Your task to perform on an android device: change notification settings in the gmail app Image 0: 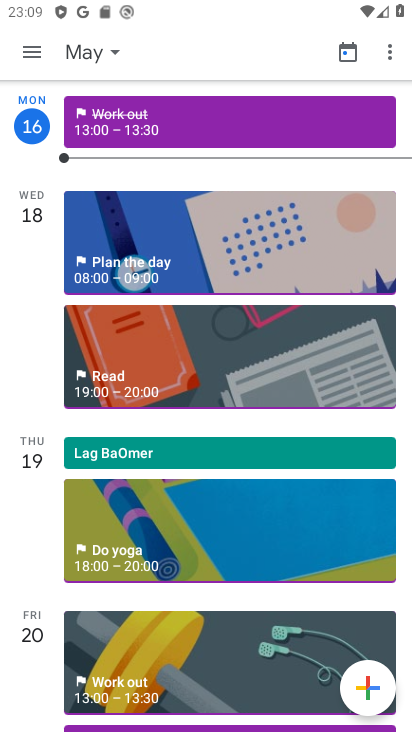
Step 0: press home button
Your task to perform on an android device: change notification settings in the gmail app Image 1: 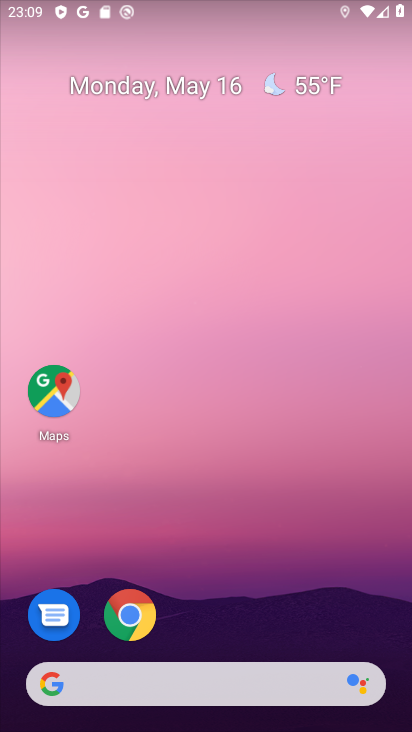
Step 1: drag from (227, 658) to (142, 0)
Your task to perform on an android device: change notification settings in the gmail app Image 2: 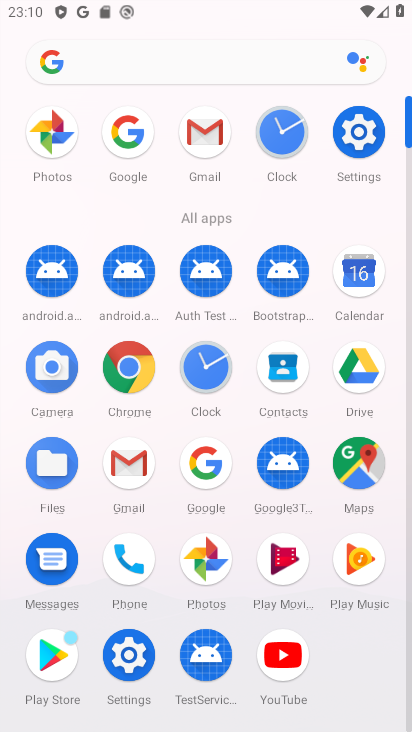
Step 2: click (128, 463)
Your task to perform on an android device: change notification settings in the gmail app Image 3: 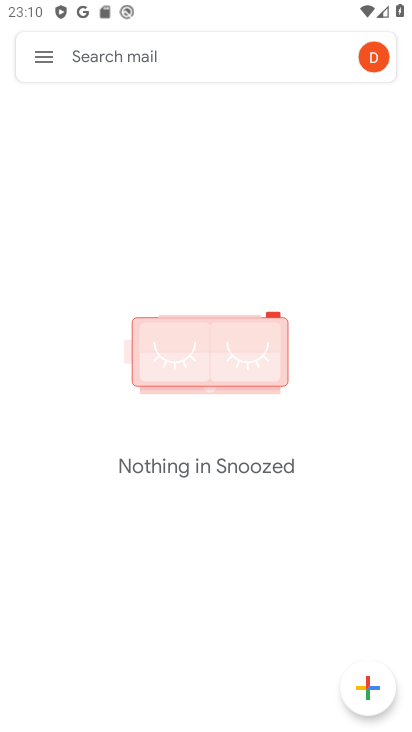
Step 3: click (42, 63)
Your task to perform on an android device: change notification settings in the gmail app Image 4: 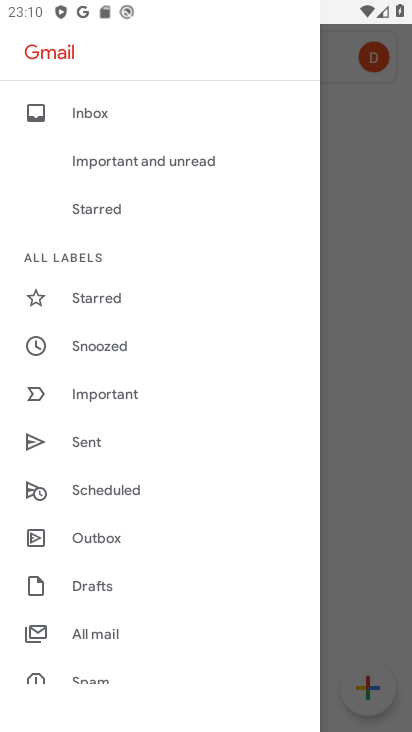
Step 4: drag from (91, 566) to (49, 36)
Your task to perform on an android device: change notification settings in the gmail app Image 5: 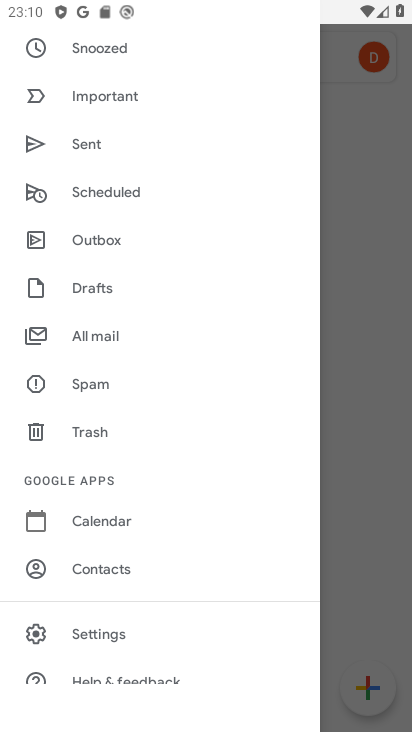
Step 5: click (65, 624)
Your task to perform on an android device: change notification settings in the gmail app Image 6: 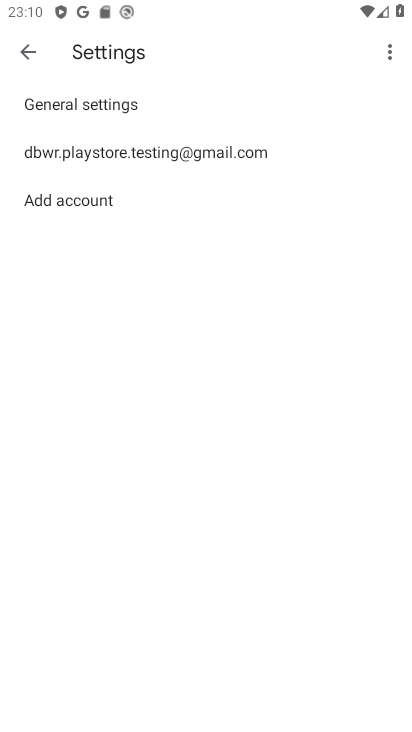
Step 6: click (84, 105)
Your task to perform on an android device: change notification settings in the gmail app Image 7: 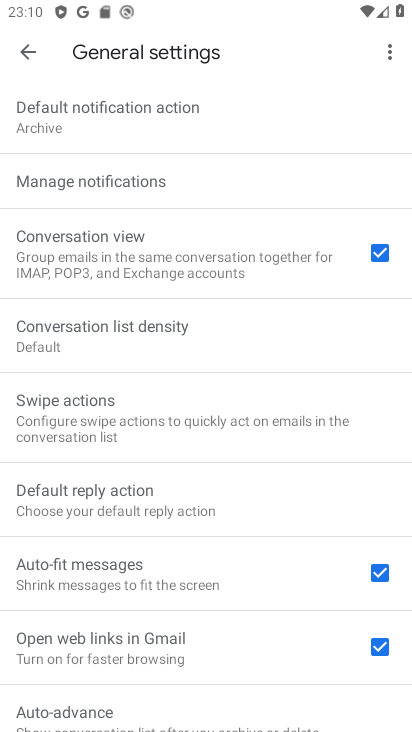
Step 7: click (77, 166)
Your task to perform on an android device: change notification settings in the gmail app Image 8: 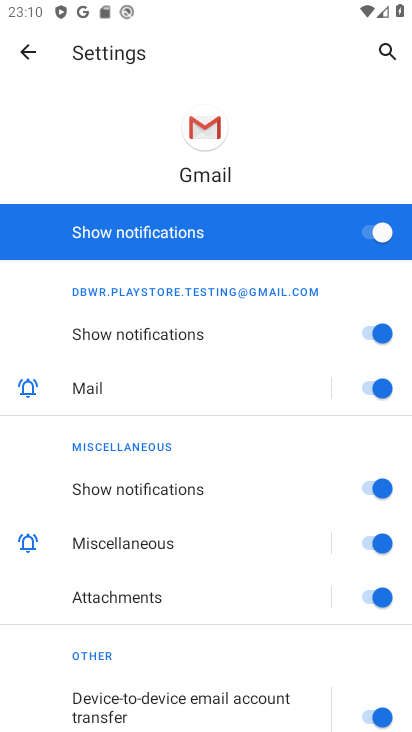
Step 8: click (392, 232)
Your task to perform on an android device: change notification settings in the gmail app Image 9: 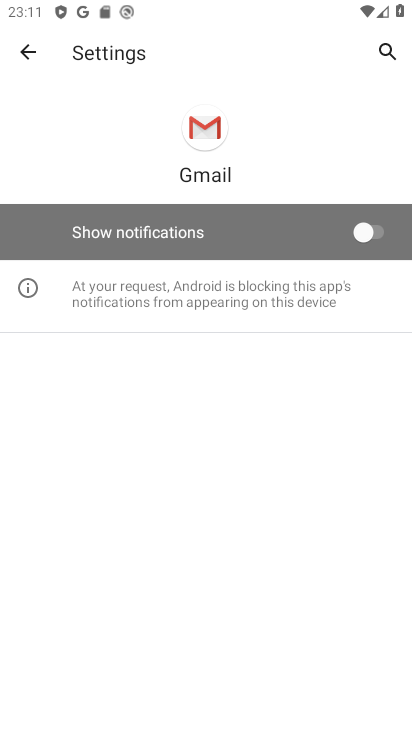
Step 9: task complete